Your task to perform on an android device: Open calendar and show me the fourth week of next month Image 0: 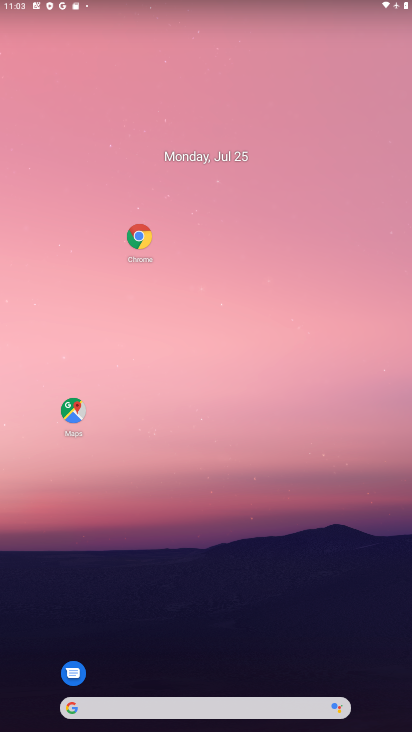
Step 0: drag from (291, 652) to (356, 436)
Your task to perform on an android device: Open calendar and show me the fourth week of next month Image 1: 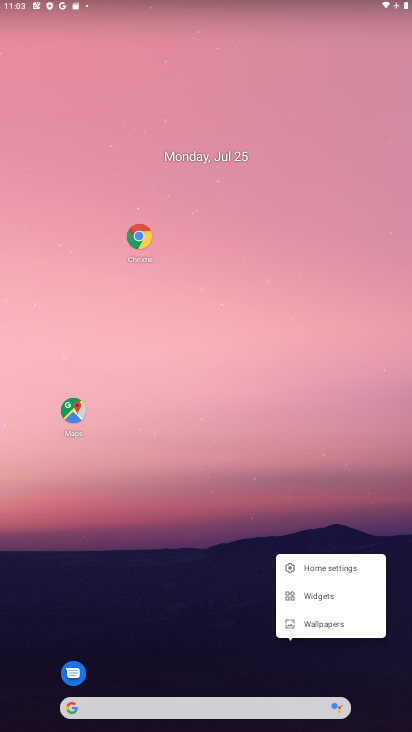
Step 1: click (234, 591)
Your task to perform on an android device: Open calendar and show me the fourth week of next month Image 2: 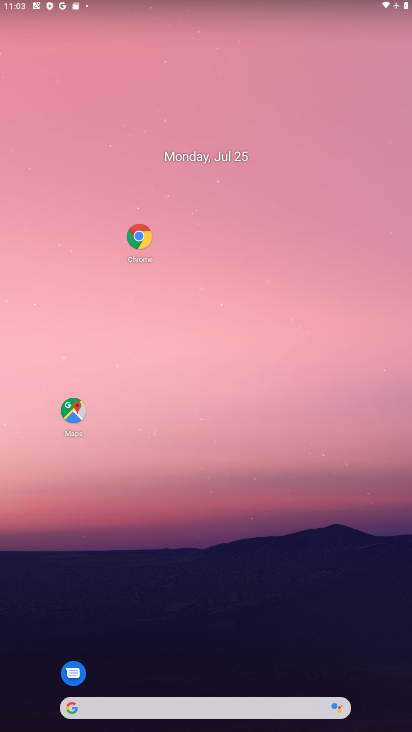
Step 2: drag from (213, 670) to (301, 153)
Your task to perform on an android device: Open calendar and show me the fourth week of next month Image 3: 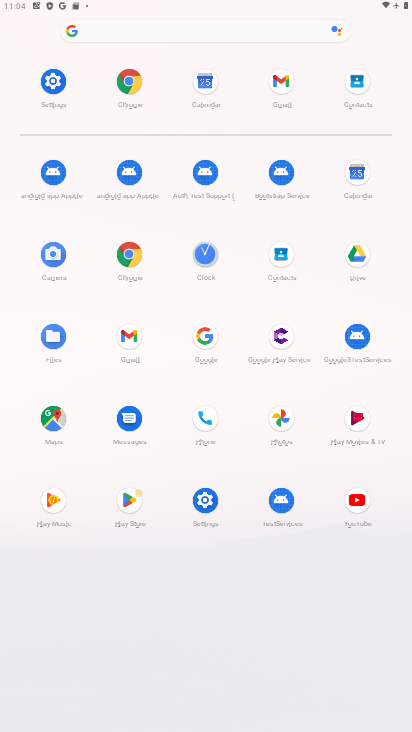
Step 3: click (350, 100)
Your task to perform on an android device: Open calendar and show me the fourth week of next month Image 4: 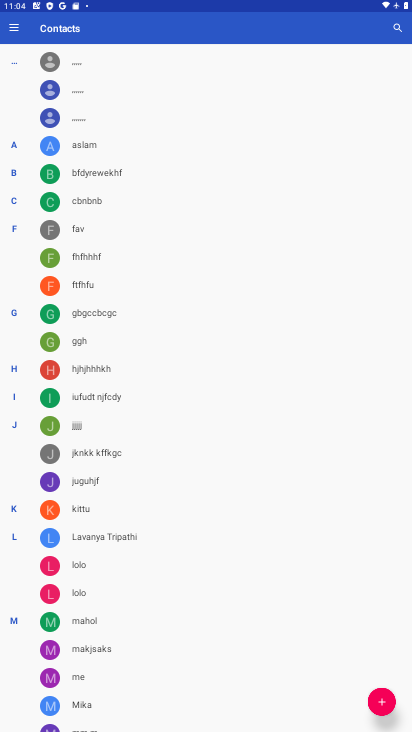
Step 4: task complete